Your task to perform on an android device: Open sound settings Image 0: 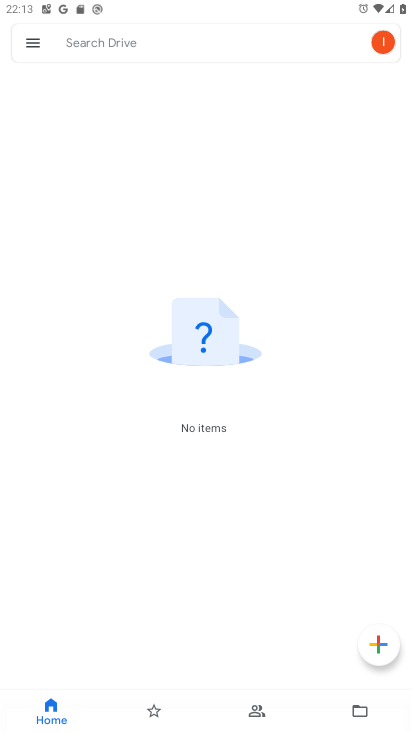
Step 0: press home button
Your task to perform on an android device: Open sound settings Image 1: 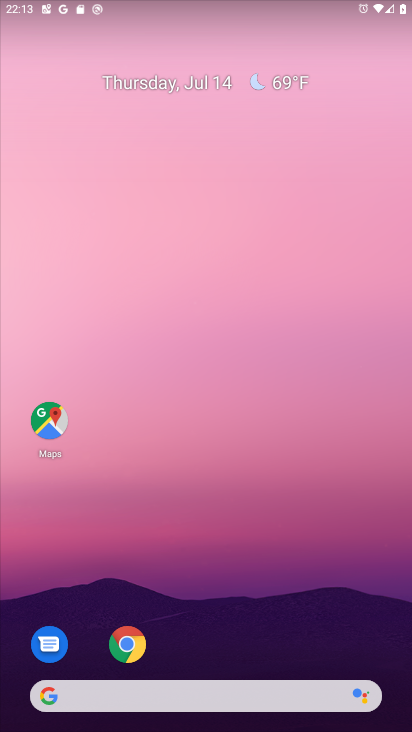
Step 1: drag from (195, 632) to (250, 12)
Your task to perform on an android device: Open sound settings Image 2: 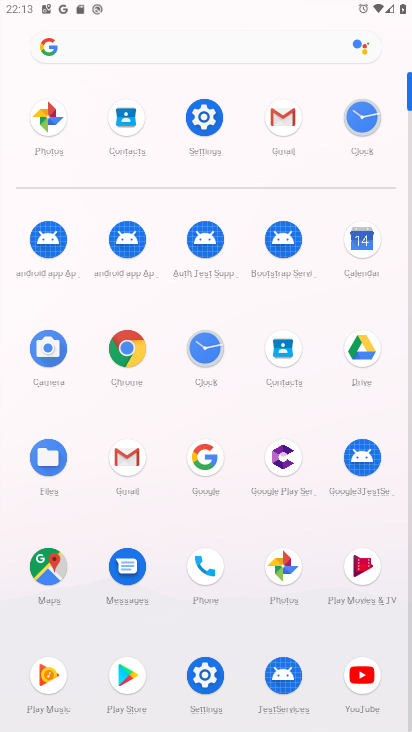
Step 2: click (198, 103)
Your task to perform on an android device: Open sound settings Image 3: 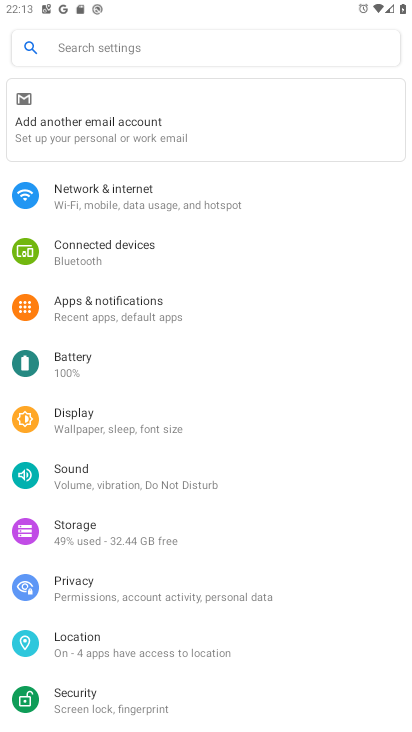
Step 3: click (59, 474)
Your task to perform on an android device: Open sound settings Image 4: 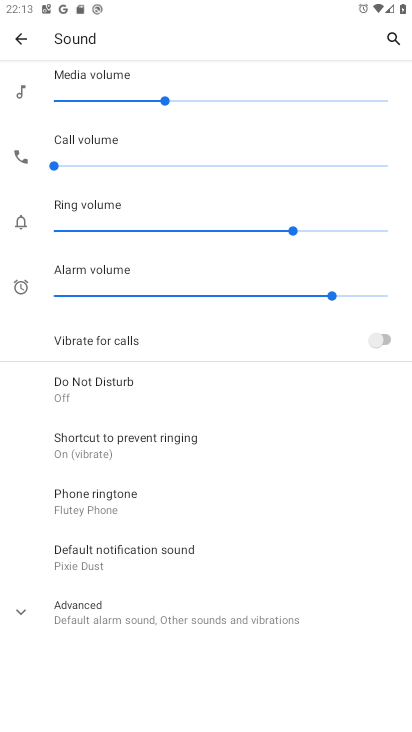
Step 4: task complete